Your task to perform on an android device: Open battery settings Image 0: 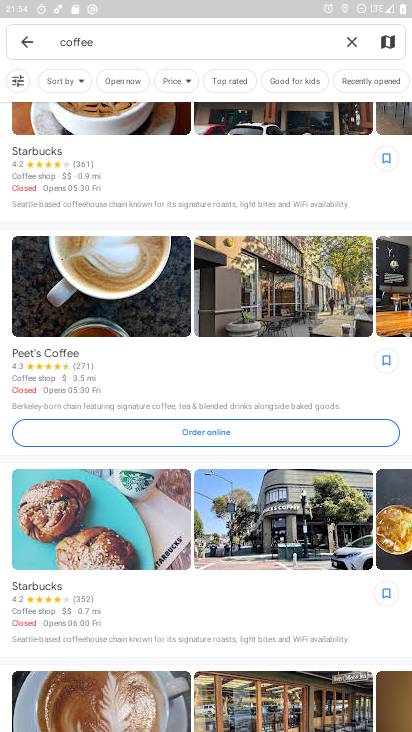
Step 0: drag from (236, 601) to (273, 345)
Your task to perform on an android device: Open battery settings Image 1: 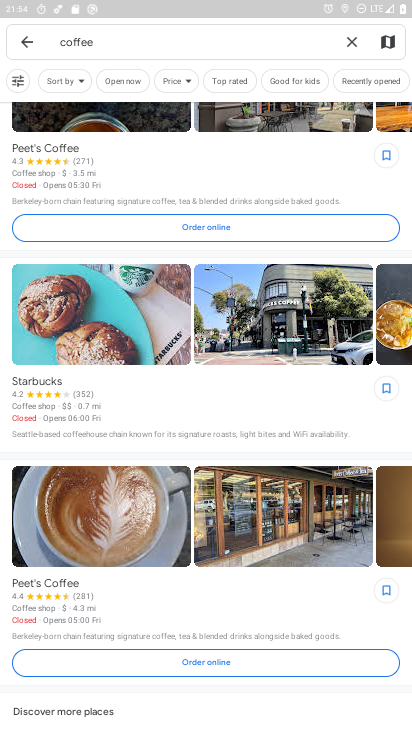
Step 1: press back button
Your task to perform on an android device: Open battery settings Image 2: 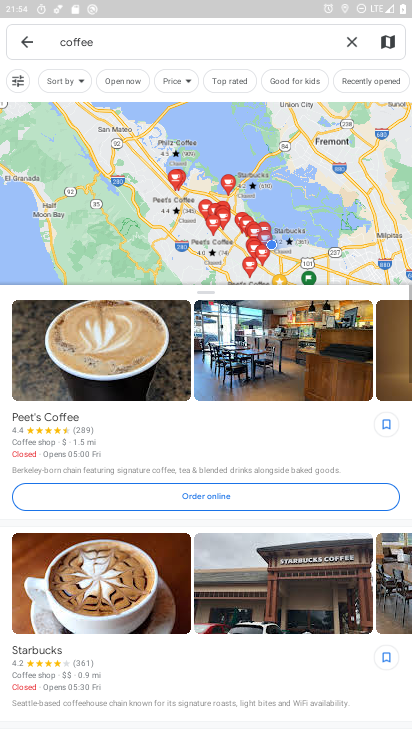
Step 2: click (27, 35)
Your task to perform on an android device: Open battery settings Image 3: 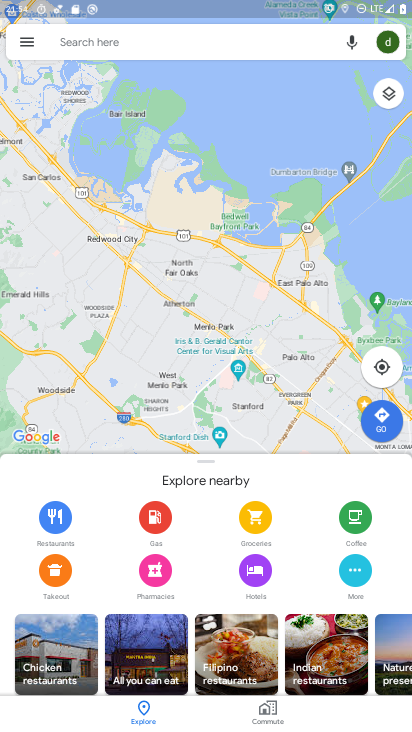
Step 3: press home button
Your task to perform on an android device: Open battery settings Image 4: 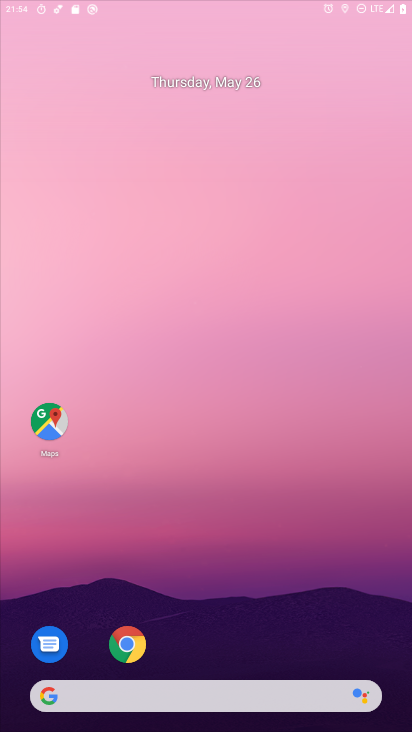
Step 4: drag from (214, 523) to (263, 236)
Your task to perform on an android device: Open battery settings Image 5: 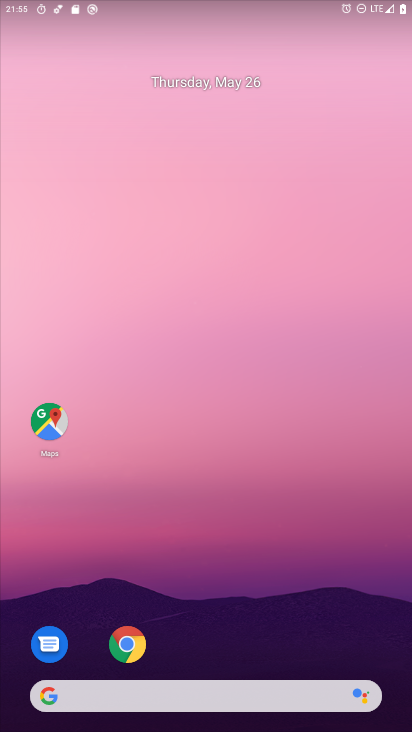
Step 5: drag from (206, 604) to (249, 105)
Your task to perform on an android device: Open battery settings Image 6: 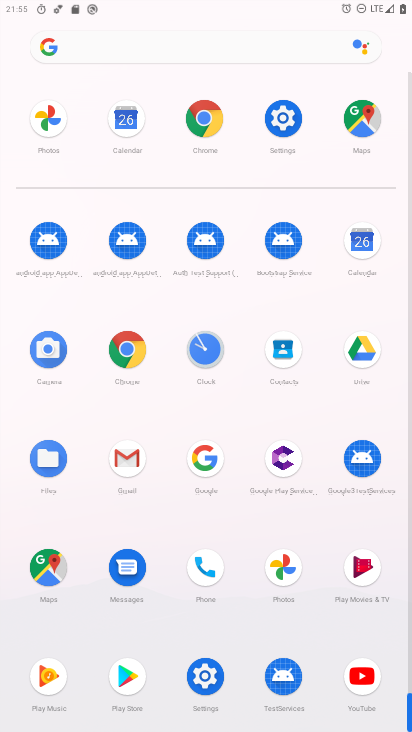
Step 6: click (279, 118)
Your task to perform on an android device: Open battery settings Image 7: 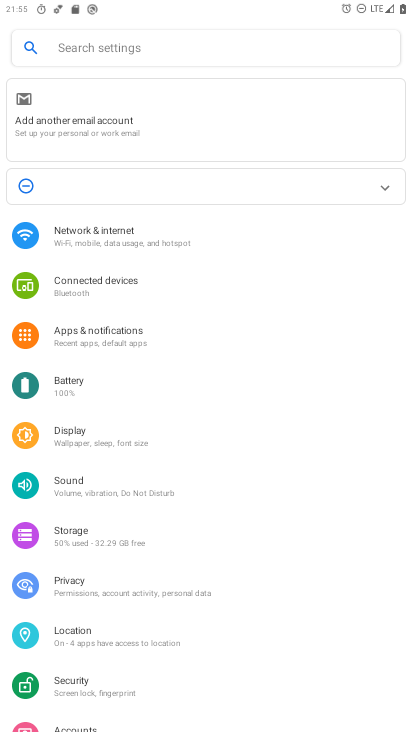
Step 7: click (78, 378)
Your task to perform on an android device: Open battery settings Image 8: 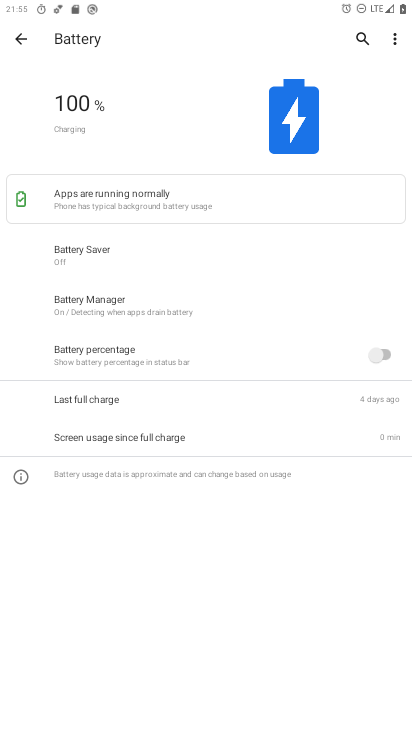
Step 8: task complete